Your task to perform on an android device: Search for sushi restaurants on Maps Image 0: 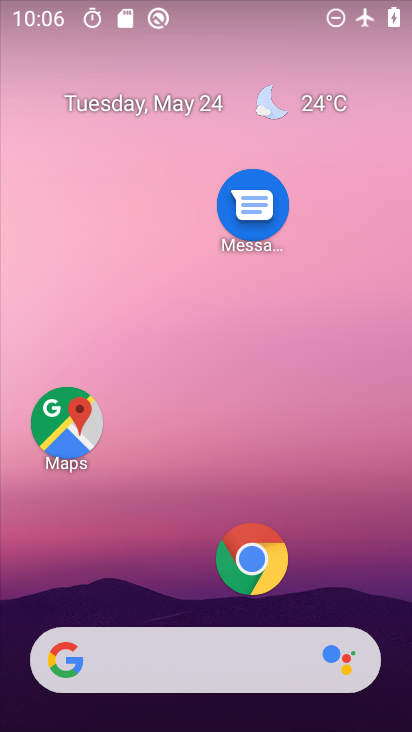
Step 0: click (91, 445)
Your task to perform on an android device: Search for sushi restaurants on Maps Image 1: 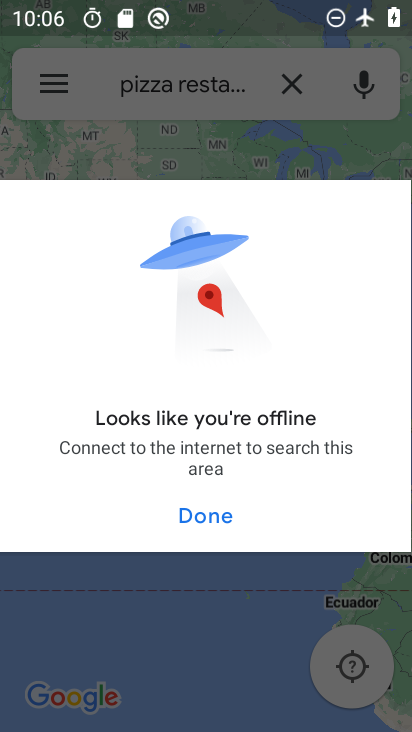
Step 1: task complete